Your task to perform on an android device: turn smart compose on in the gmail app Image 0: 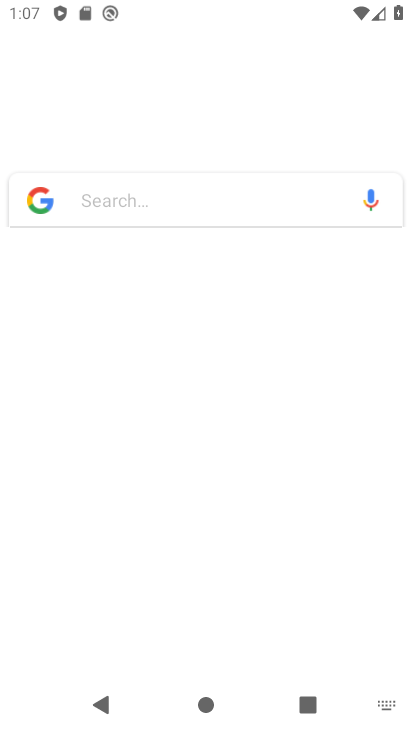
Step 0: drag from (306, 587) to (401, 524)
Your task to perform on an android device: turn smart compose on in the gmail app Image 1: 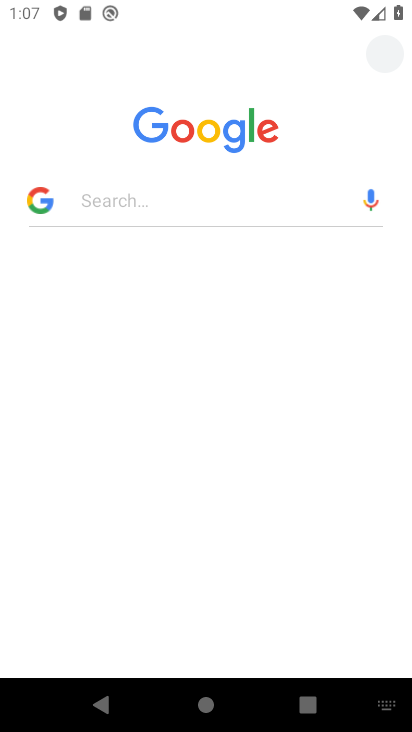
Step 1: drag from (285, 595) to (348, 217)
Your task to perform on an android device: turn smart compose on in the gmail app Image 2: 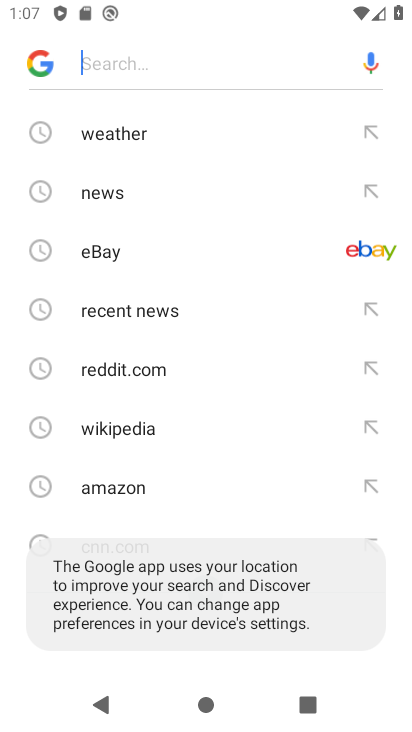
Step 2: press home button
Your task to perform on an android device: turn smart compose on in the gmail app Image 3: 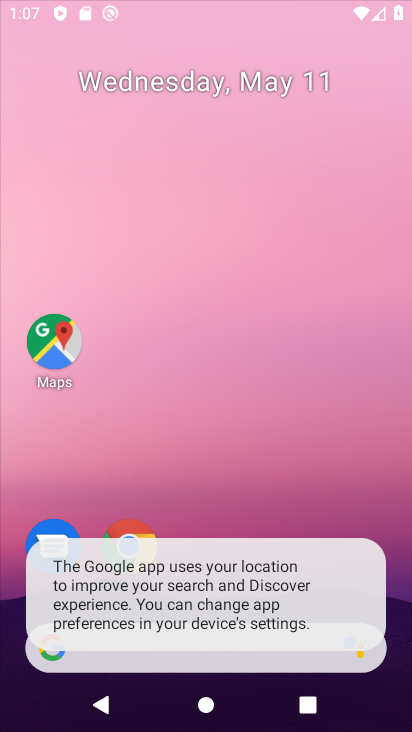
Step 3: drag from (201, 601) to (295, 162)
Your task to perform on an android device: turn smart compose on in the gmail app Image 4: 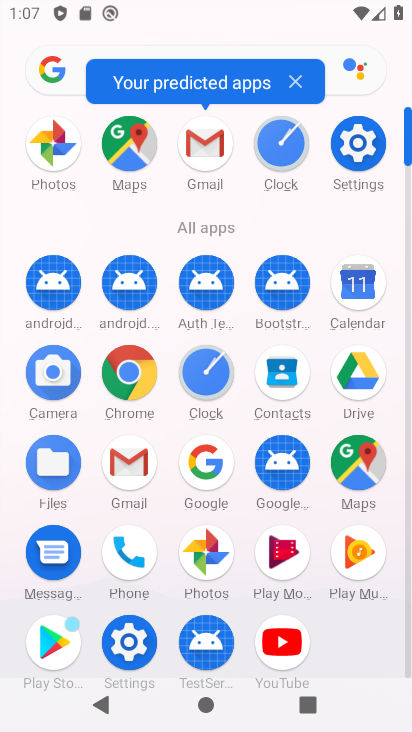
Step 4: click (129, 457)
Your task to perform on an android device: turn smart compose on in the gmail app Image 5: 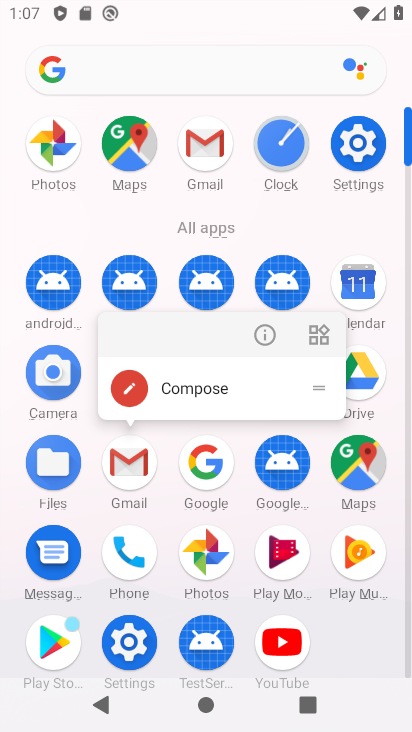
Step 5: click (258, 336)
Your task to perform on an android device: turn smart compose on in the gmail app Image 6: 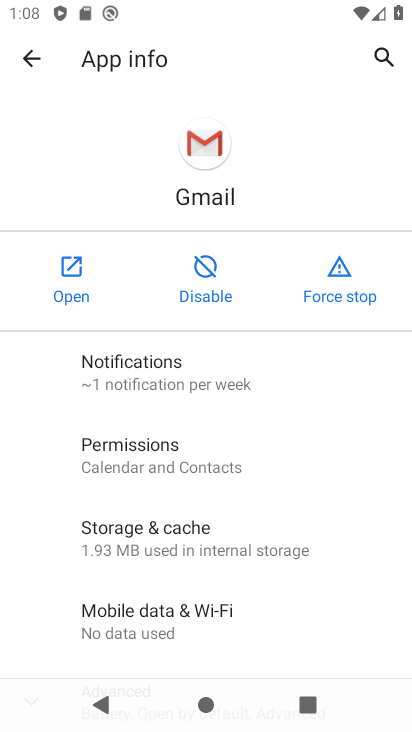
Step 6: click (69, 263)
Your task to perform on an android device: turn smart compose on in the gmail app Image 7: 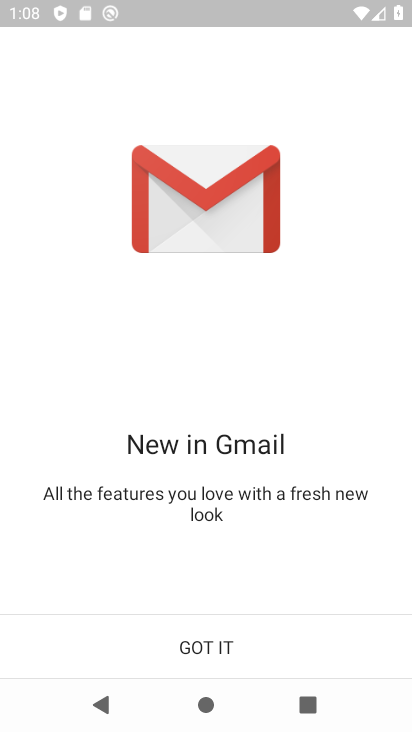
Step 7: click (211, 635)
Your task to perform on an android device: turn smart compose on in the gmail app Image 8: 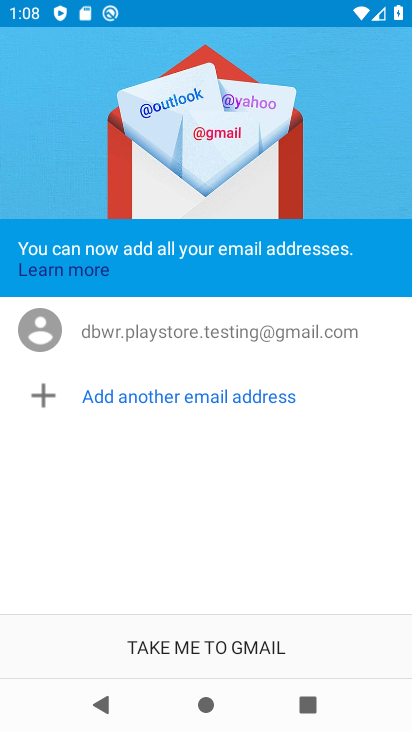
Step 8: click (207, 653)
Your task to perform on an android device: turn smart compose on in the gmail app Image 9: 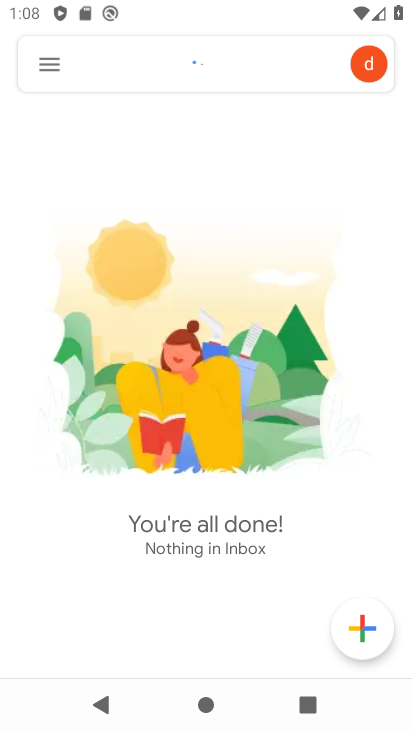
Step 9: drag from (234, 574) to (299, 156)
Your task to perform on an android device: turn smart compose on in the gmail app Image 10: 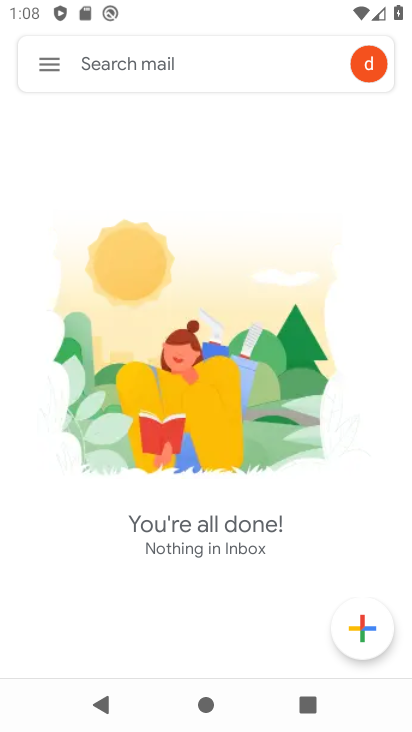
Step 10: click (67, 55)
Your task to perform on an android device: turn smart compose on in the gmail app Image 11: 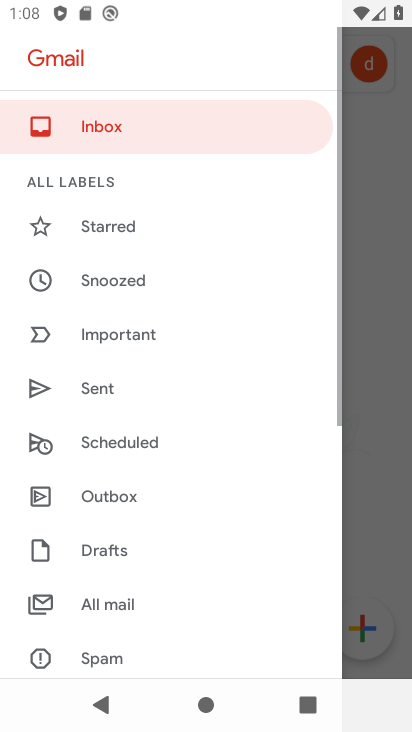
Step 11: drag from (137, 626) to (173, 43)
Your task to perform on an android device: turn smart compose on in the gmail app Image 12: 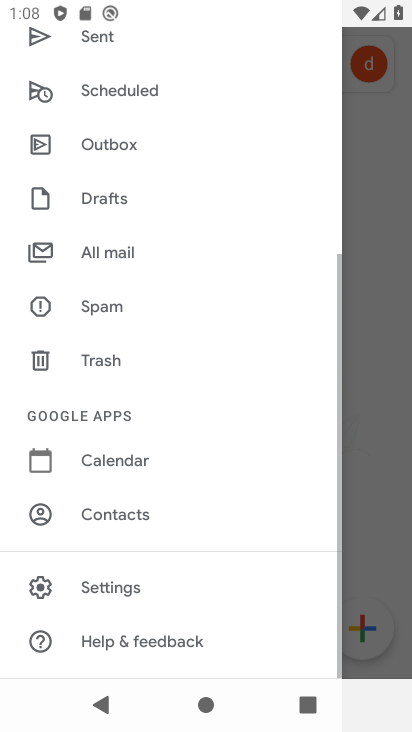
Step 12: click (125, 587)
Your task to perform on an android device: turn smart compose on in the gmail app Image 13: 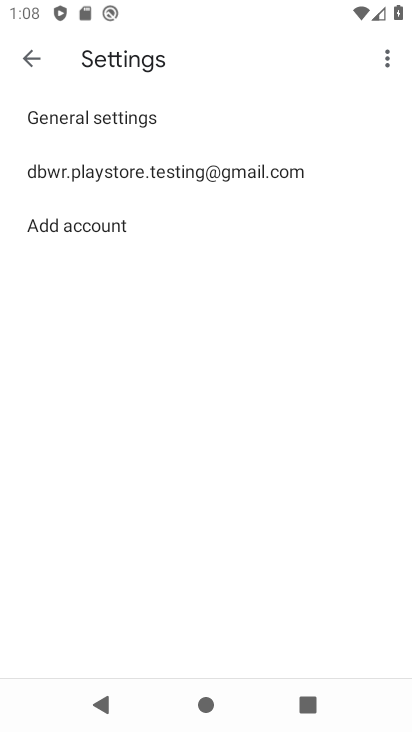
Step 13: drag from (244, 520) to (264, 227)
Your task to perform on an android device: turn smart compose on in the gmail app Image 14: 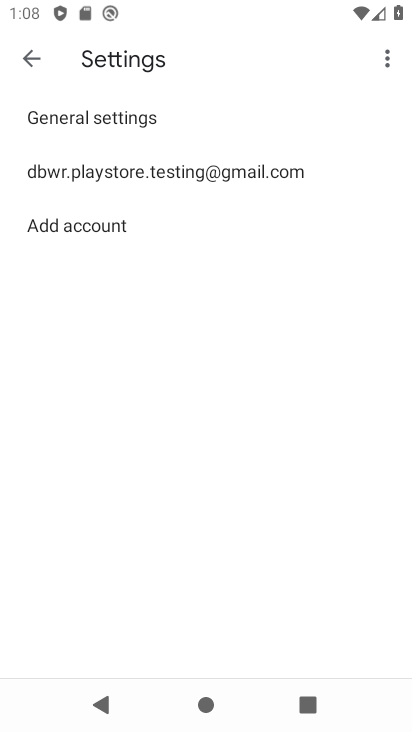
Step 14: click (209, 172)
Your task to perform on an android device: turn smart compose on in the gmail app Image 15: 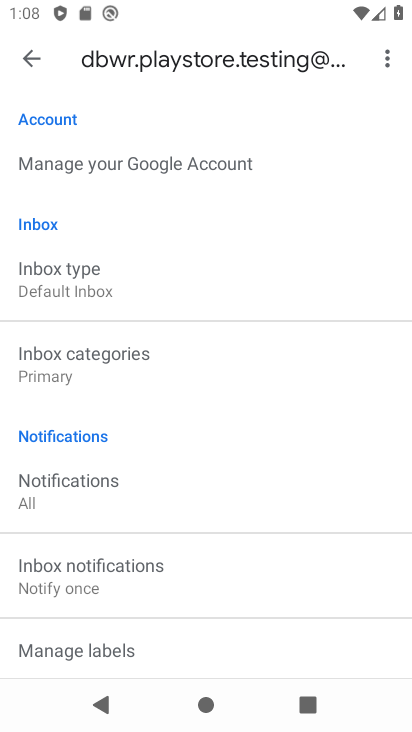
Step 15: task complete